Your task to perform on an android device: turn on wifi Image 0: 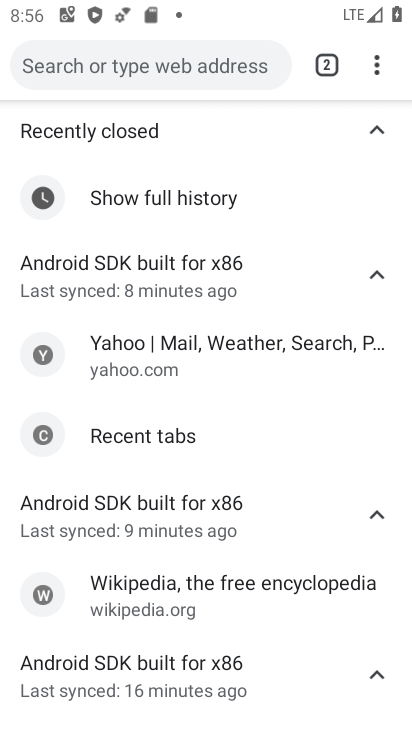
Step 0: press home button
Your task to perform on an android device: turn on wifi Image 1: 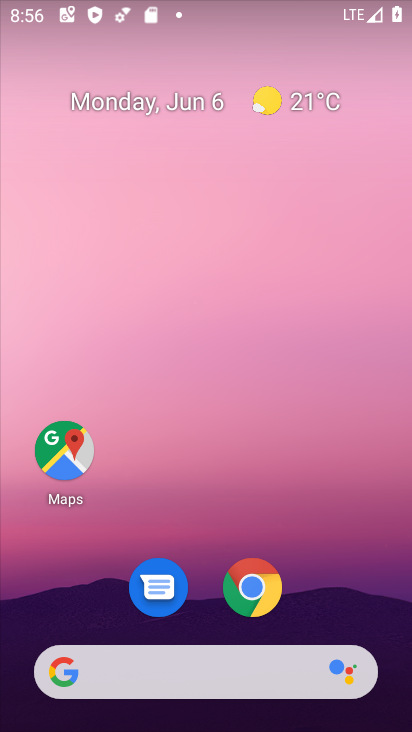
Step 1: drag from (209, 720) to (243, 2)
Your task to perform on an android device: turn on wifi Image 2: 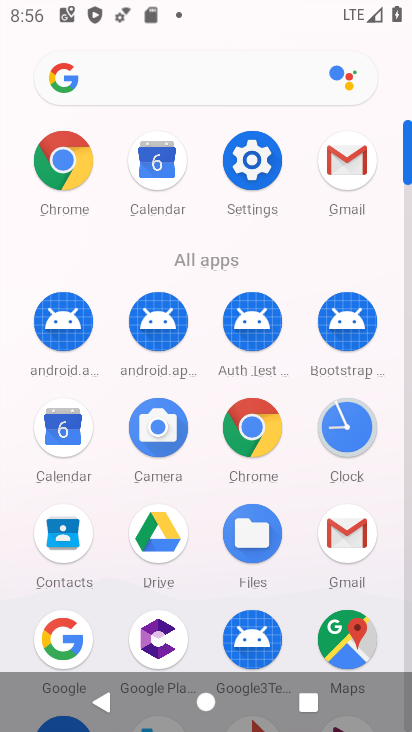
Step 2: click (246, 158)
Your task to perform on an android device: turn on wifi Image 3: 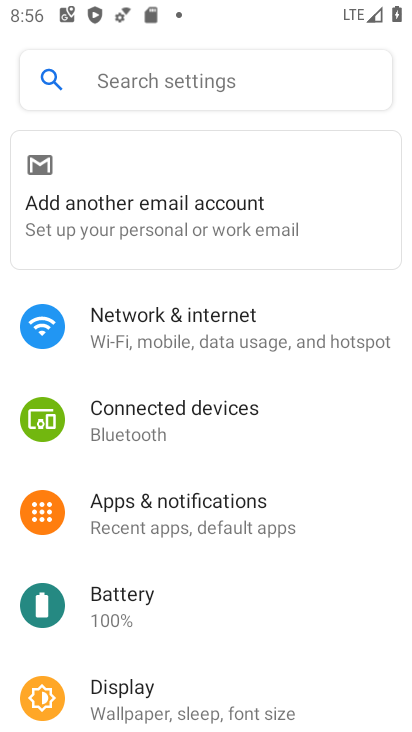
Step 3: click (279, 332)
Your task to perform on an android device: turn on wifi Image 4: 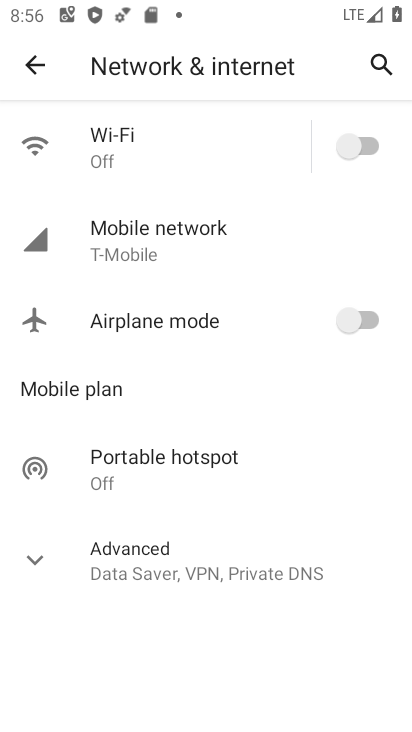
Step 4: click (349, 154)
Your task to perform on an android device: turn on wifi Image 5: 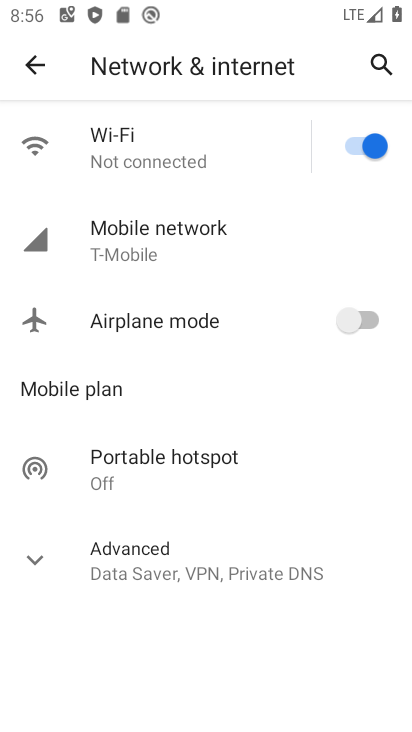
Step 5: task complete